Your task to perform on an android device: refresh tabs in the chrome app Image 0: 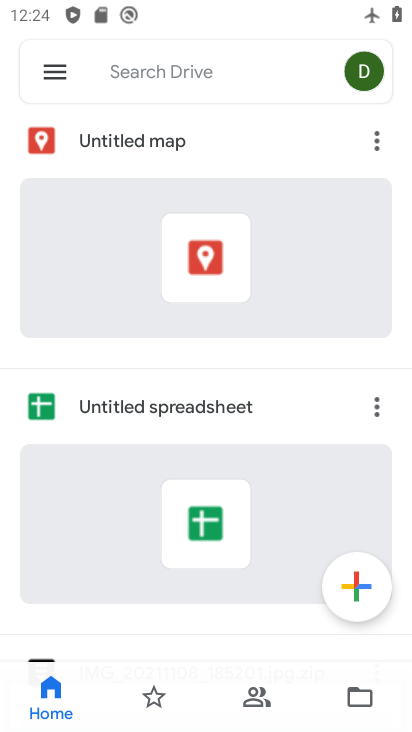
Step 0: press home button
Your task to perform on an android device: refresh tabs in the chrome app Image 1: 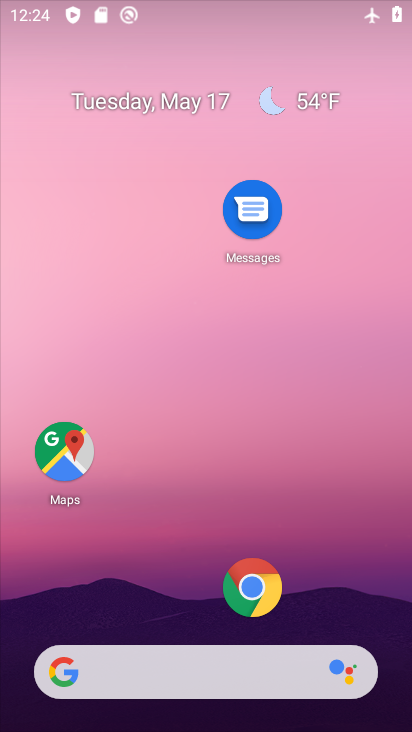
Step 1: click (262, 571)
Your task to perform on an android device: refresh tabs in the chrome app Image 2: 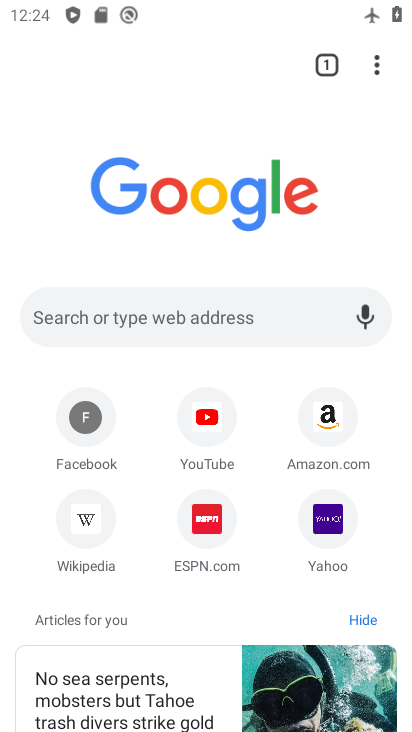
Step 2: click (374, 66)
Your task to perform on an android device: refresh tabs in the chrome app Image 3: 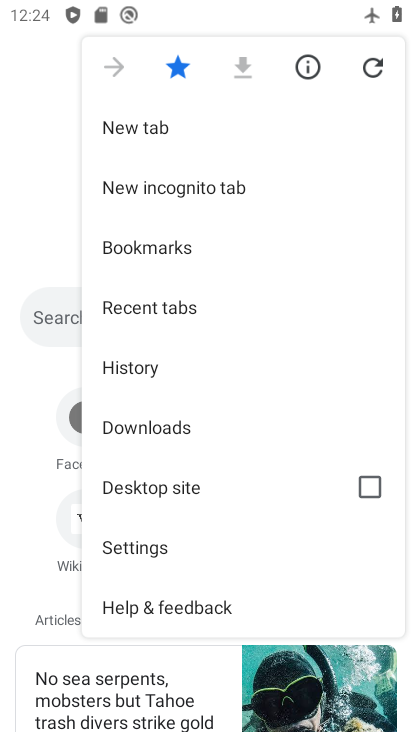
Step 3: click (370, 70)
Your task to perform on an android device: refresh tabs in the chrome app Image 4: 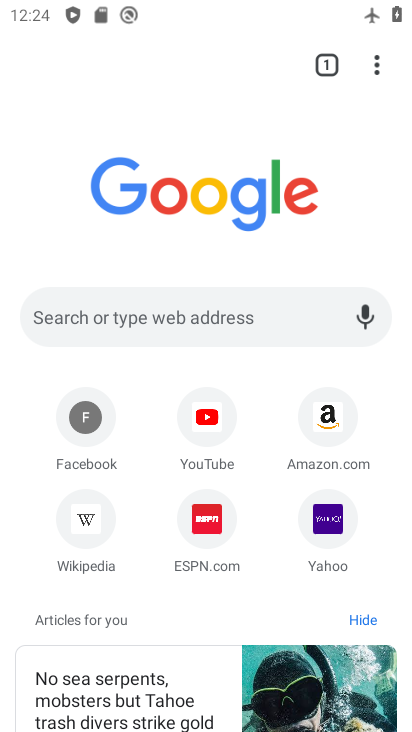
Step 4: task complete